Your task to perform on an android device: Open the map Image 0: 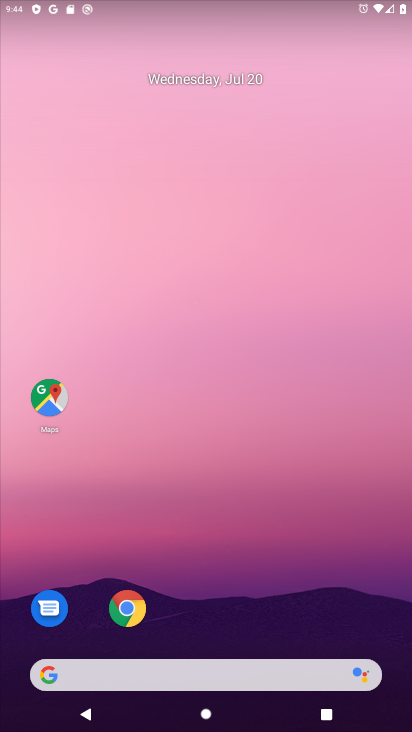
Step 0: drag from (203, 625) to (215, 27)
Your task to perform on an android device: Open the map Image 1: 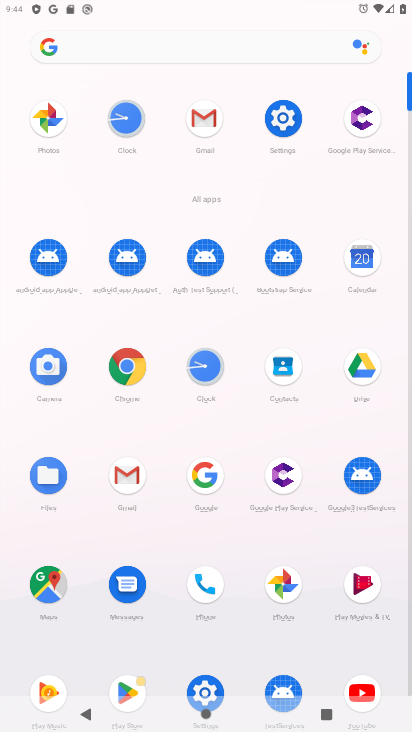
Step 1: click (46, 584)
Your task to perform on an android device: Open the map Image 2: 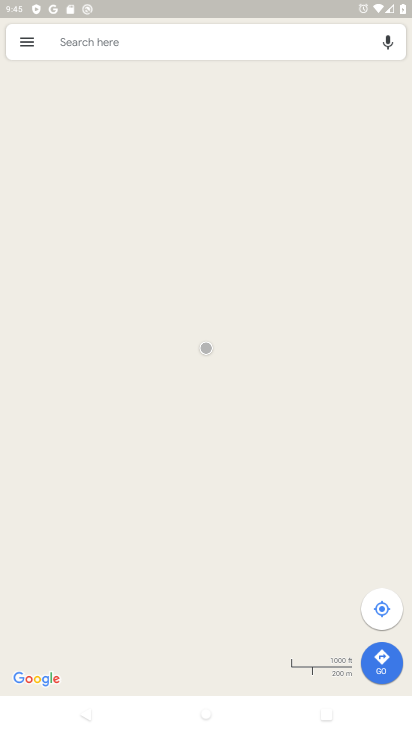
Step 2: click (84, 339)
Your task to perform on an android device: Open the map Image 3: 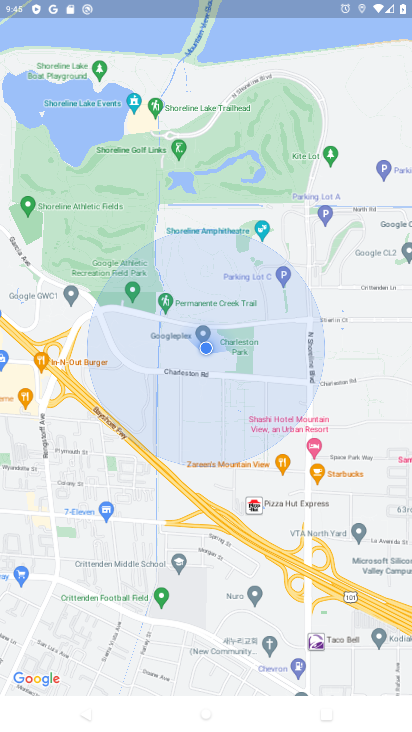
Step 3: task complete